Your task to perform on an android device: turn on airplane mode Image 0: 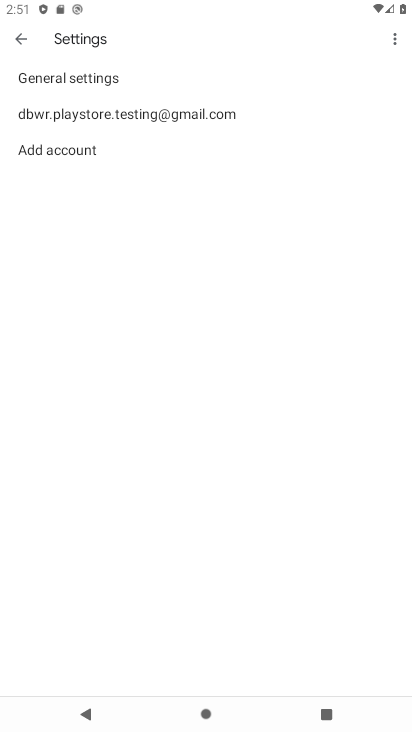
Step 0: press home button
Your task to perform on an android device: turn on airplane mode Image 1: 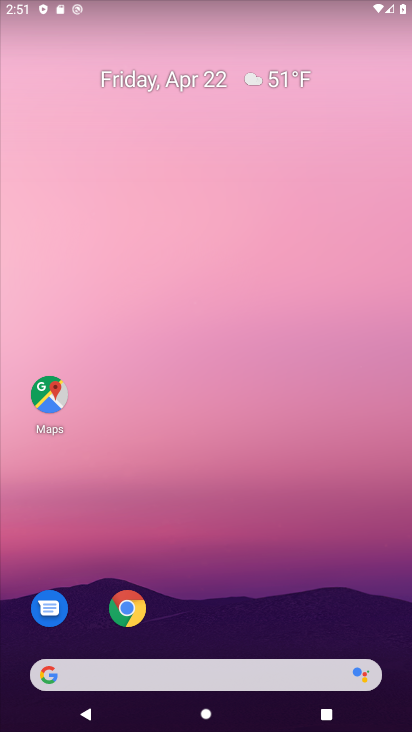
Step 1: drag from (244, 593) to (172, 91)
Your task to perform on an android device: turn on airplane mode Image 2: 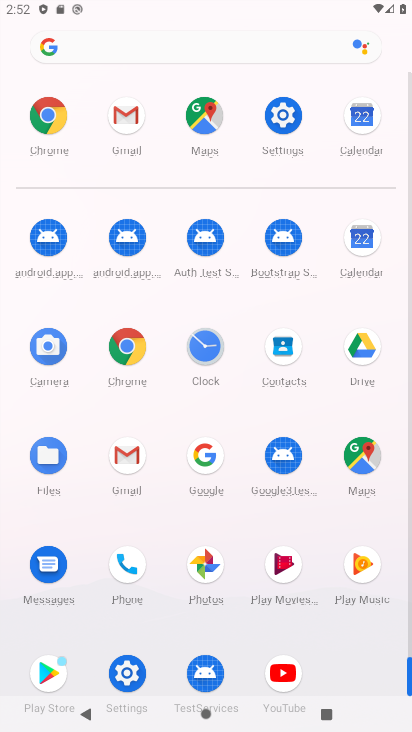
Step 2: click (285, 113)
Your task to perform on an android device: turn on airplane mode Image 3: 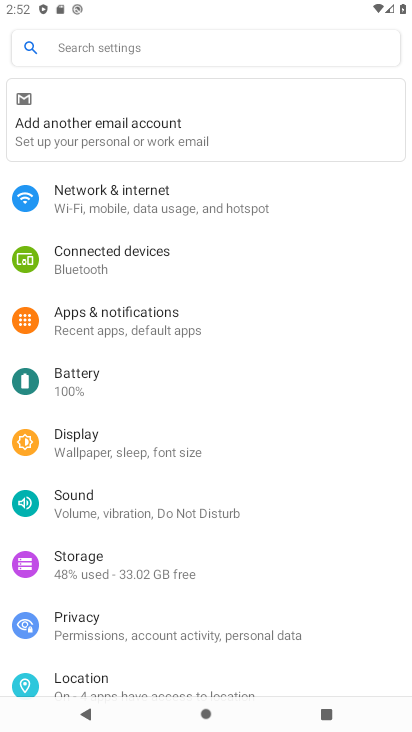
Step 3: click (214, 192)
Your task to perform on an android device: turn on airplane mode Image 4: 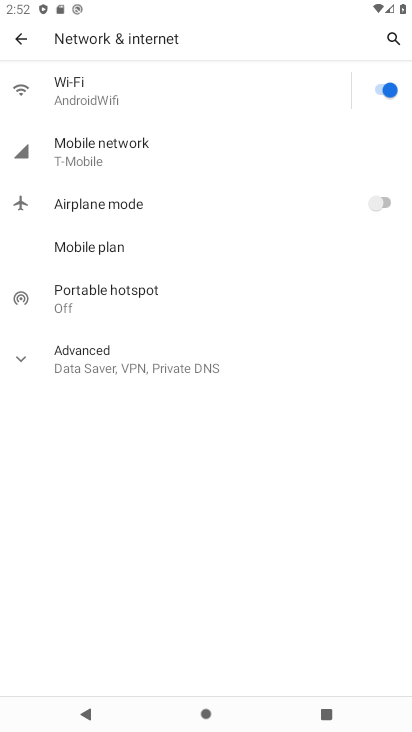
Step 4: click (391, 201)
Your task to perform on an android device: turn on airplane mode Image 5: 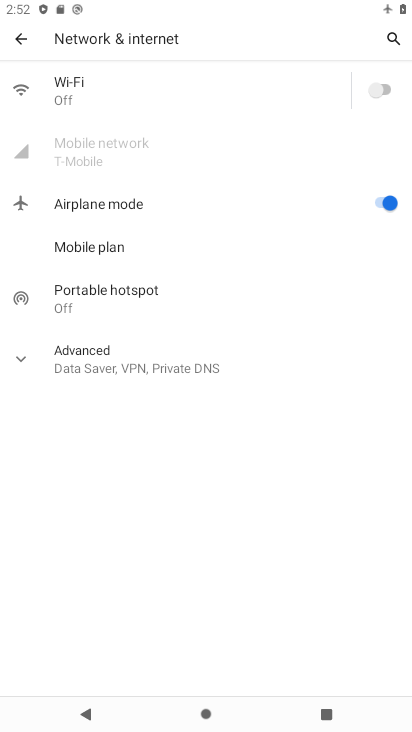
Step 5: task complete